Your task to perform on an android device: What is the news today? Image 0: 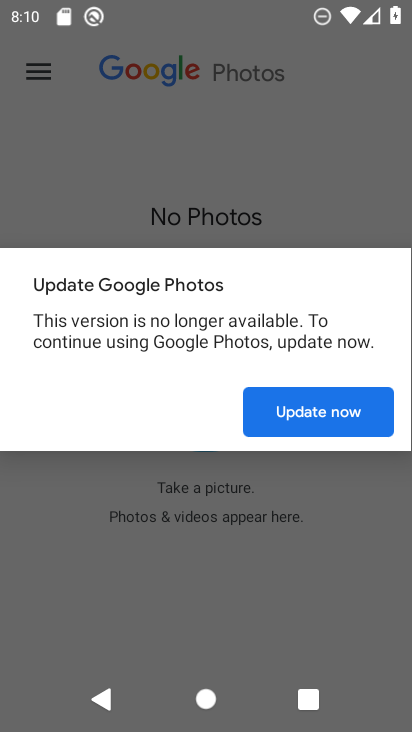
Step 0: press home button
Your task to perform on an android device: What is the news today? Image 1: 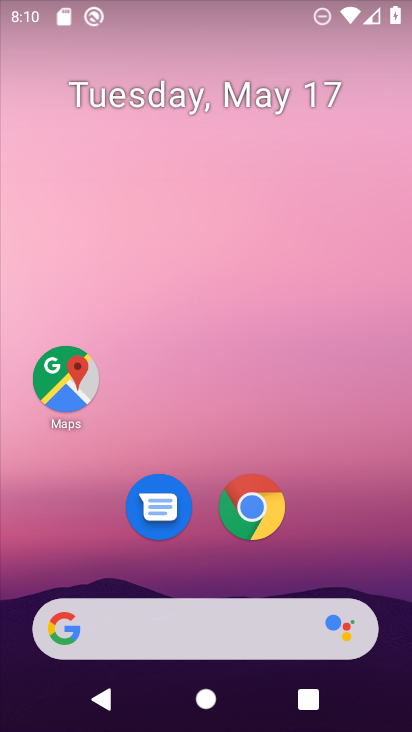
Step 1: click (122, 640)
Your task to perform on an android device: What is the news today? Image 2: 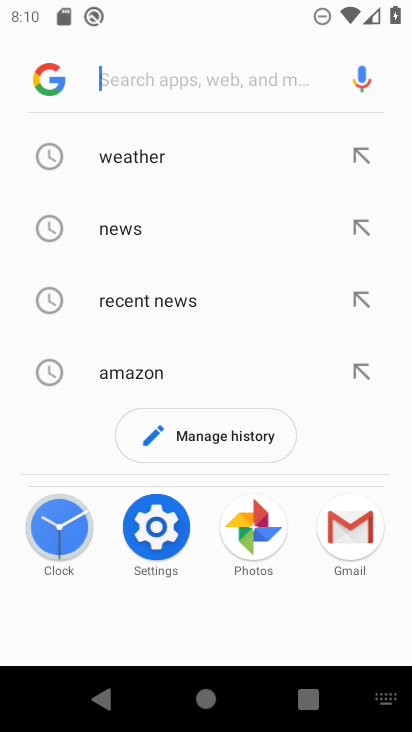
Step 2: type "news today"
Your task to perform on an android device: What is the news today? Image 3: 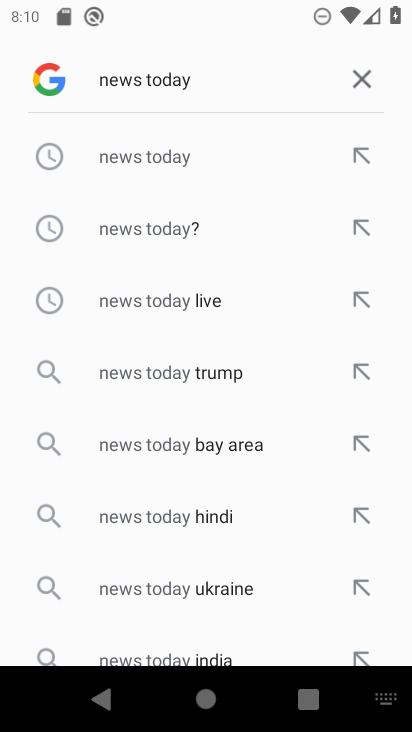
Step 3: click (155, 162)
Your task to perform on an android device: What is the news today? Image 4: 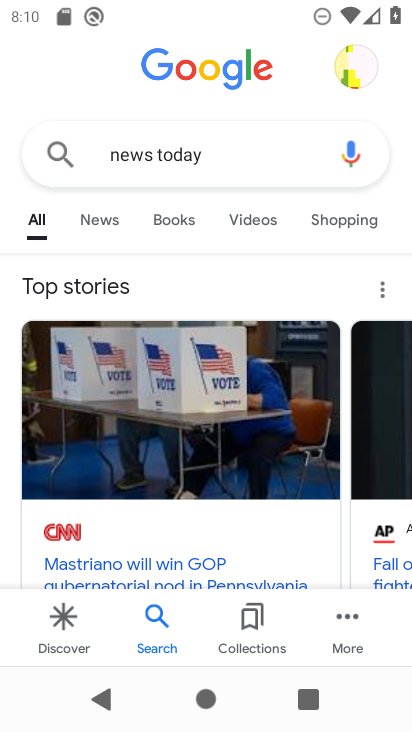
Step 4: click (92, 216)
Your task to perform on an android device: What is the news today? Image 5: 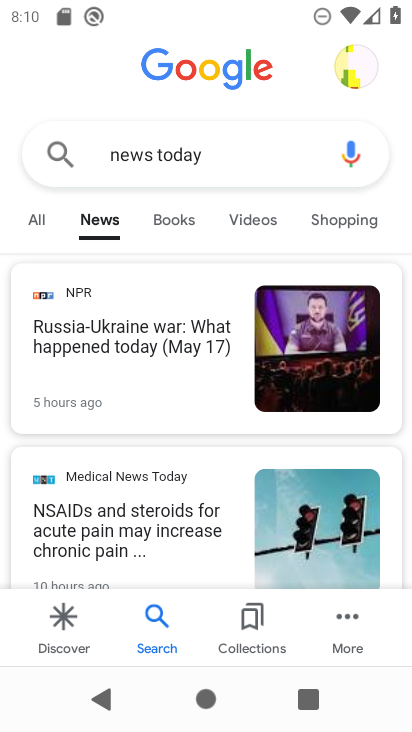
Step 5: drag from (160, 506) to (162, 212)
Your task to perform on an android device: What is the news today? Image 6: 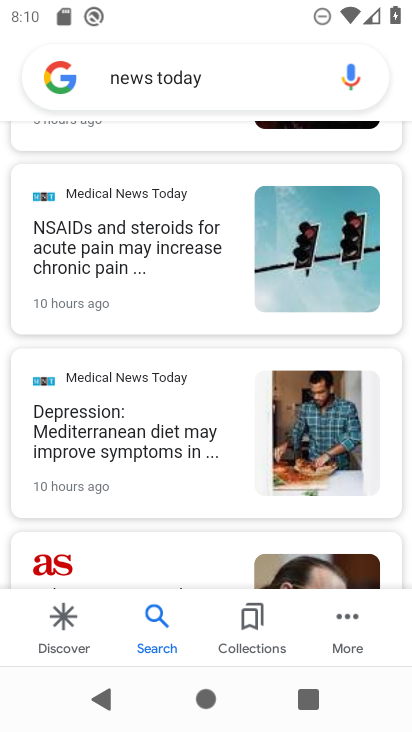
Step 6: drag from (154, 468) to (164, 198)
Your task to perform on an android device: What is the news today? Image 7: 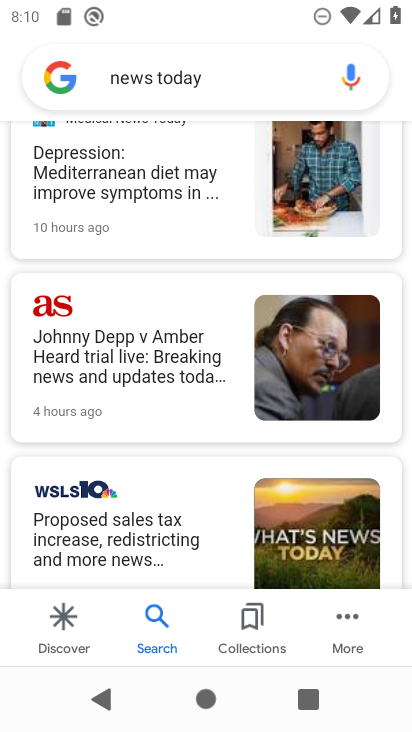
Step 7: drag from (159, 415) to (143, 267)
Your task to perform on an android device: What is the news today? Image 8: 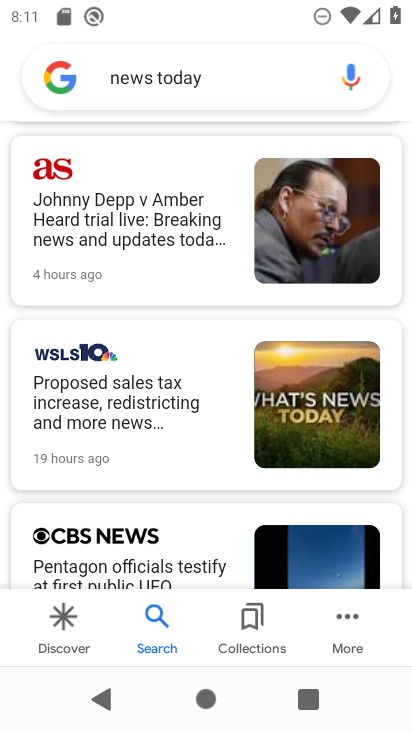
Step 8: drag from (141, 208) to (137, 579)
Your task to perform on an android device: What is the news today? Image 9: 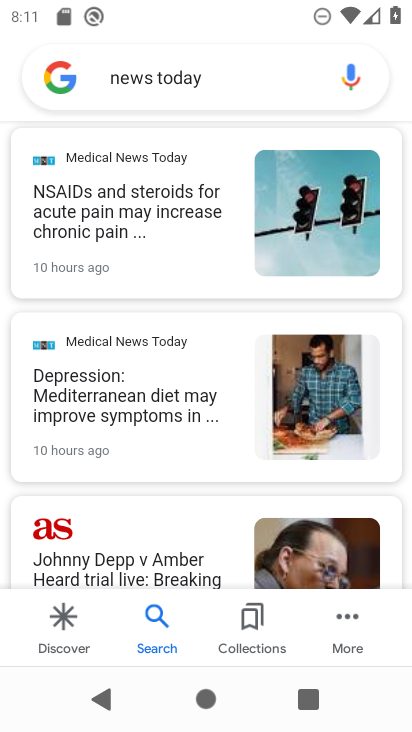
Step 9: drag from (126, 200) to (106, 542)
Your task to perform on an android device: What is the news today? Image 10: 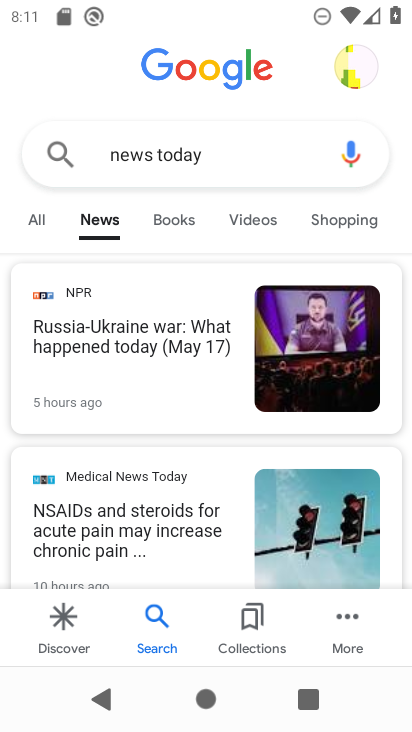
Step 10: drag from (102, 239) to (115, 335)
Your task to perform on an android device: What is the news today? Image 11: 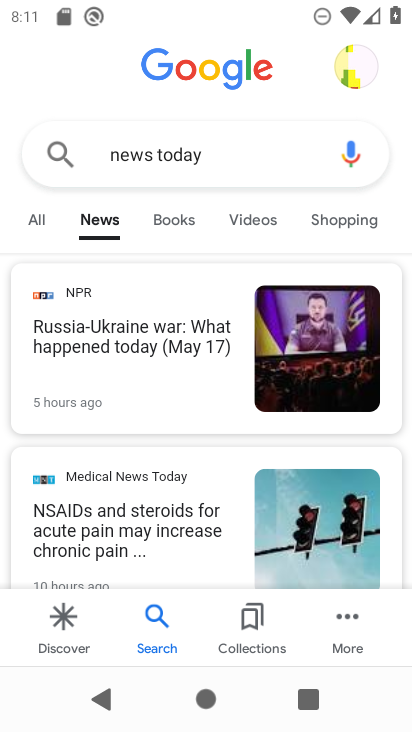
Step 11: click (111, 345)
Your task to perform on an android device: What is the news today? Image 12: 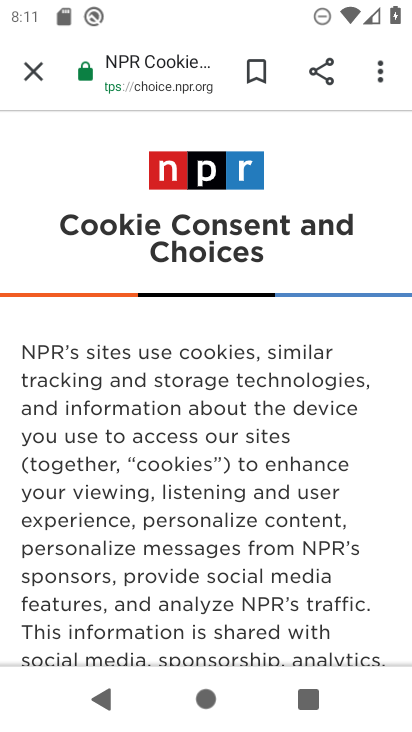
Step 12: click (26, 68)
Your task to perform on an android device: What is the news today? Image 13: 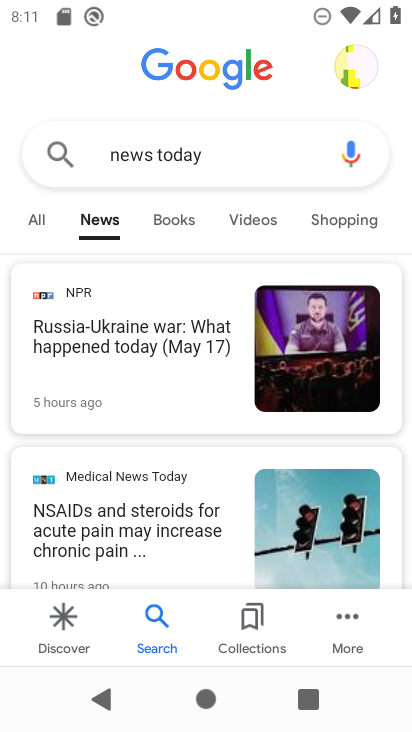
Step 13: click (142, 336)
Your task to perform on an android device: What is the news today? Image 14: 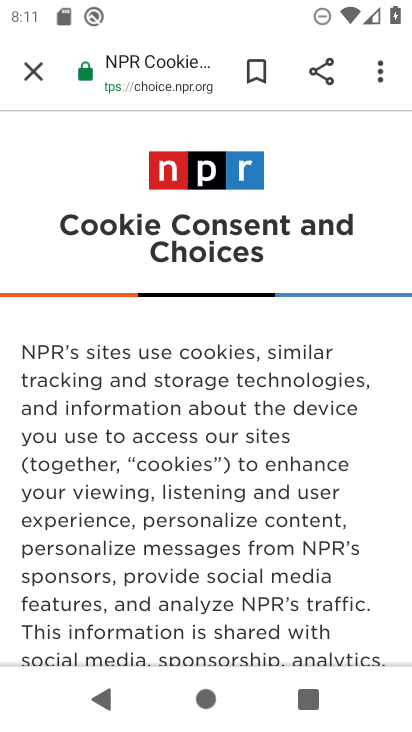
Step 14: task complete